Your task to perform on an android device: Open Wikipedia Image 0: 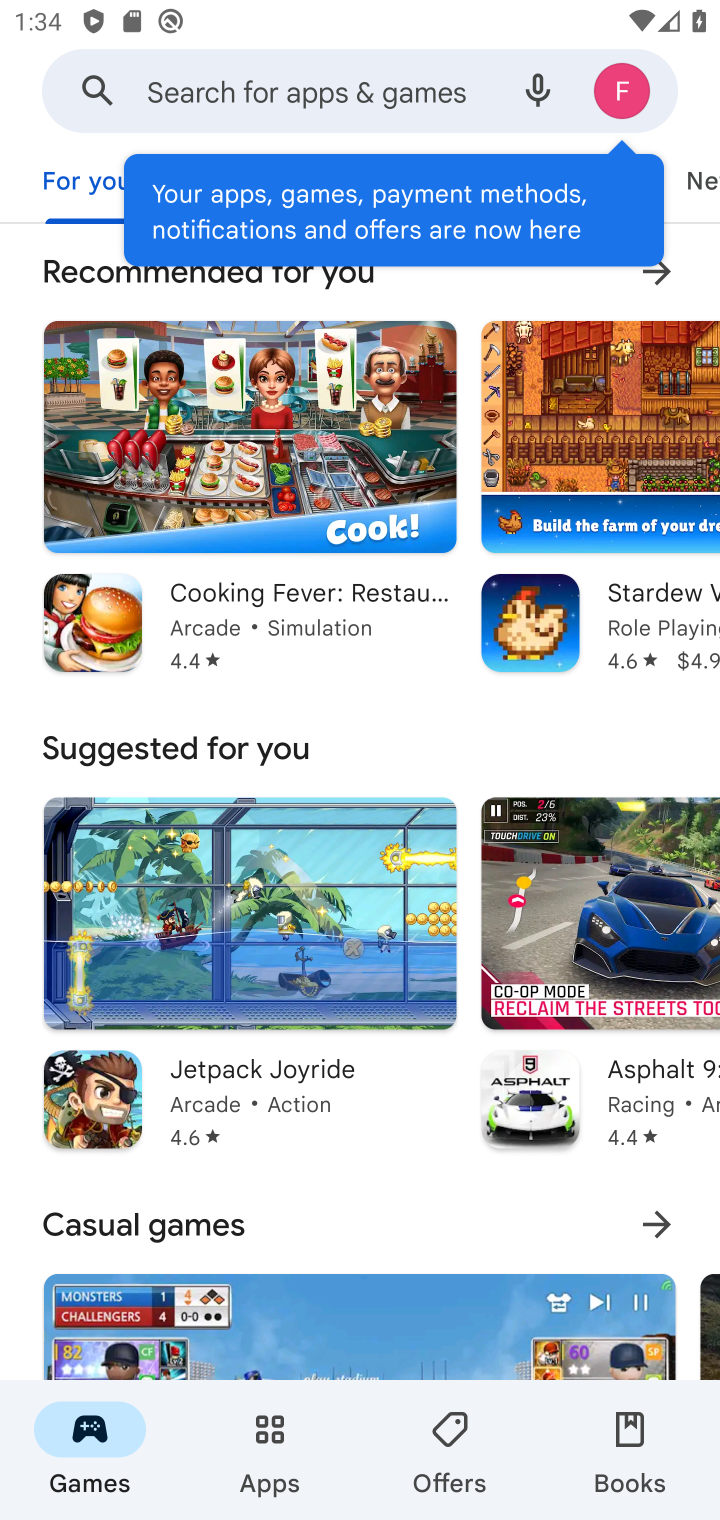
Step 0: press home button
Your task to perform on an android device: Open Wikipedia Image 1: 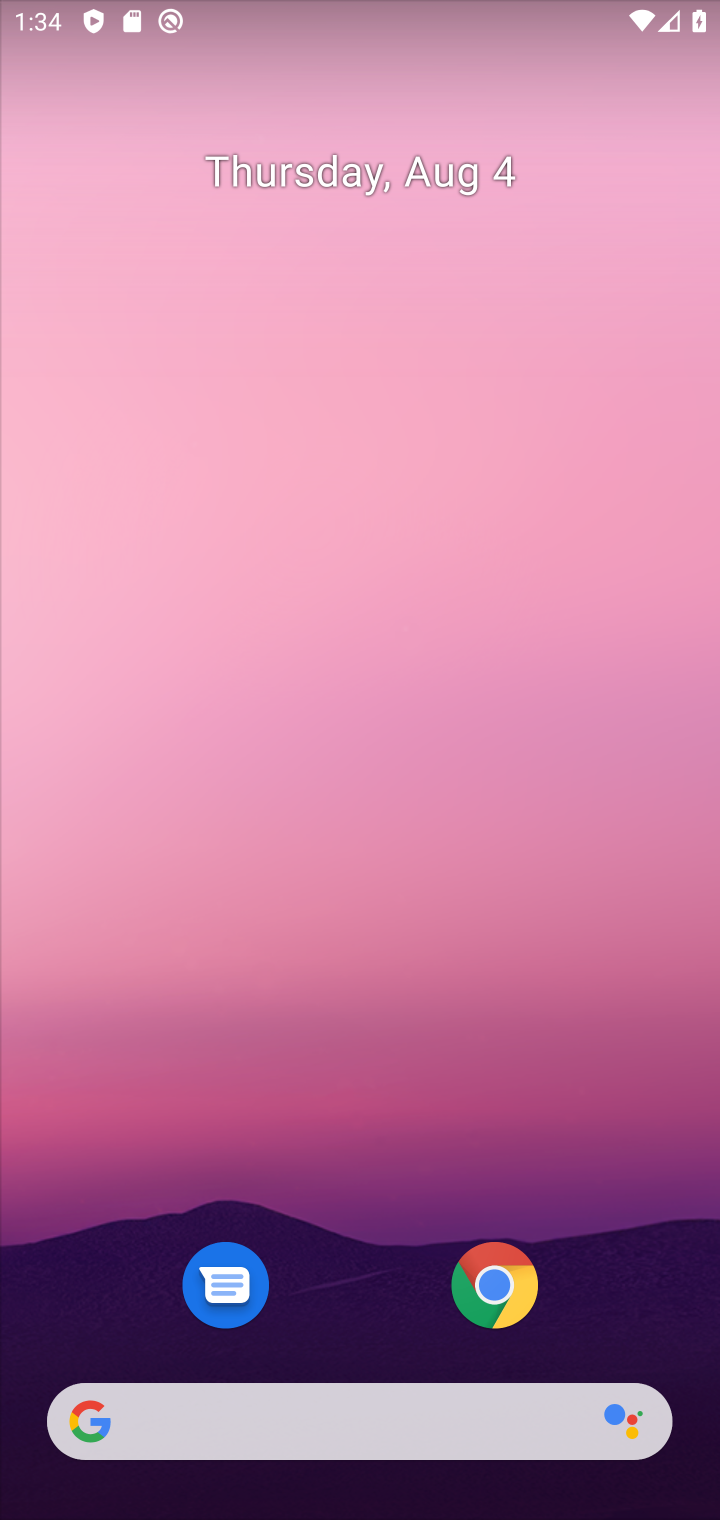
Step 1: click (494, 1283)
Your task to perform on an android device: Open Wikipedia Image 2: 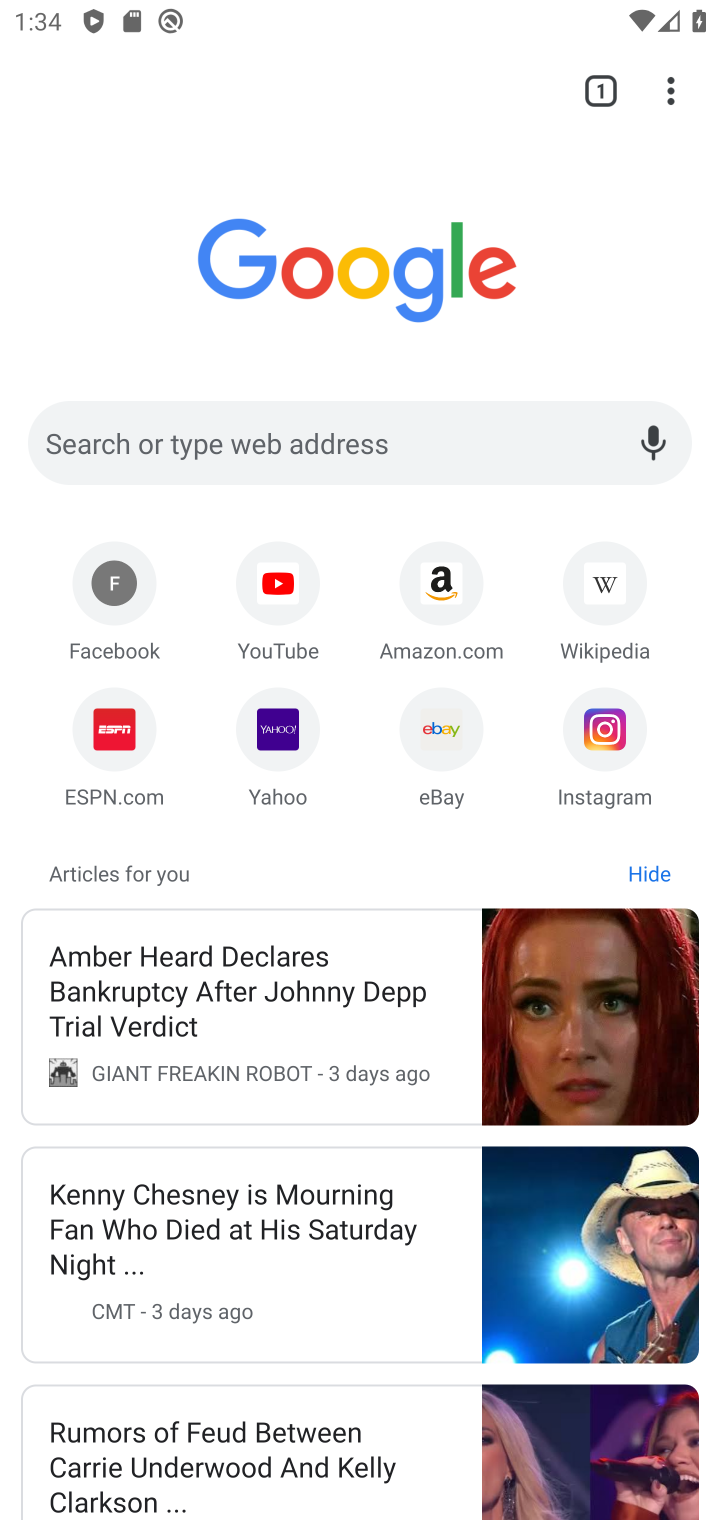
Step 2: click (596, 580)
Your task to perform on an android device: Open Wikipedia Image 3: 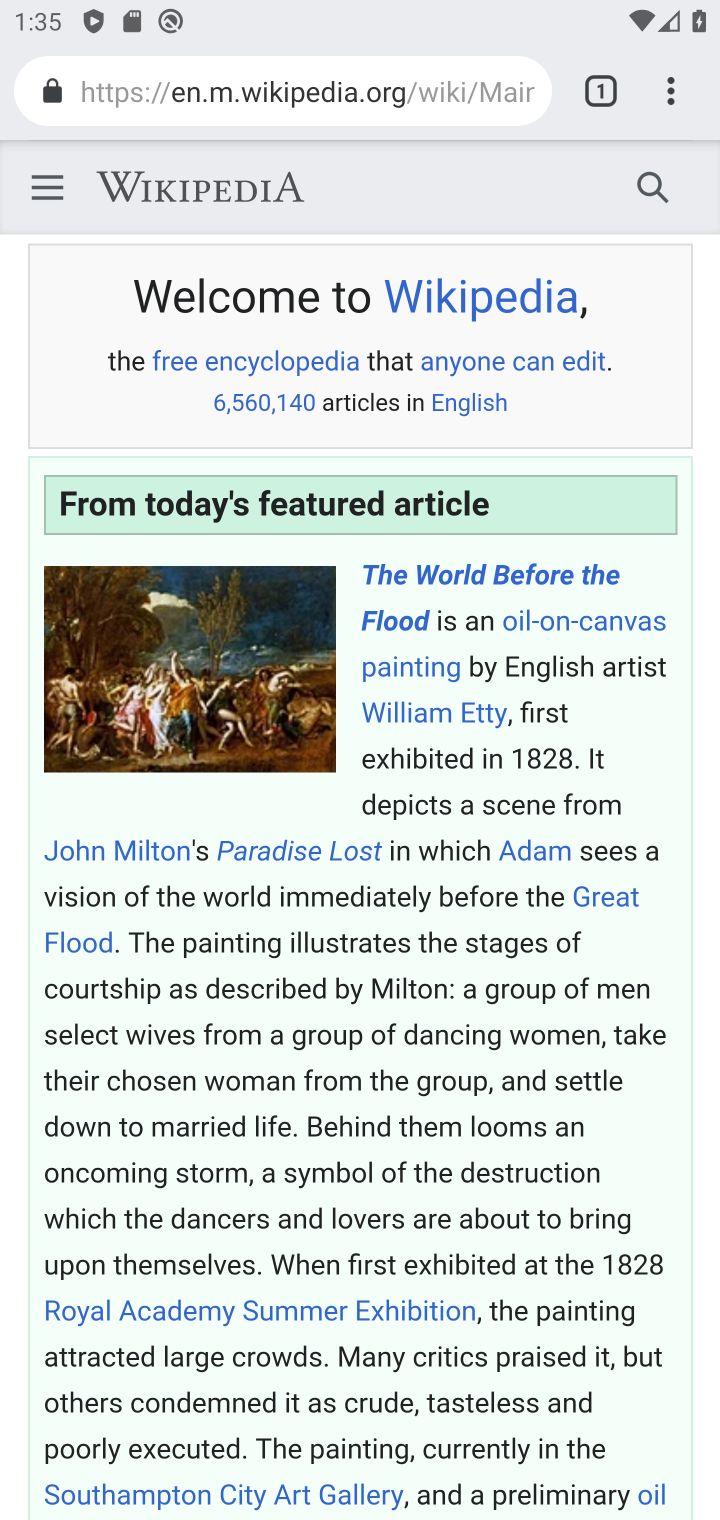
Step 3: task complete